Your task to perform on an android device: What's the weather going to be this weekend? Image 0: 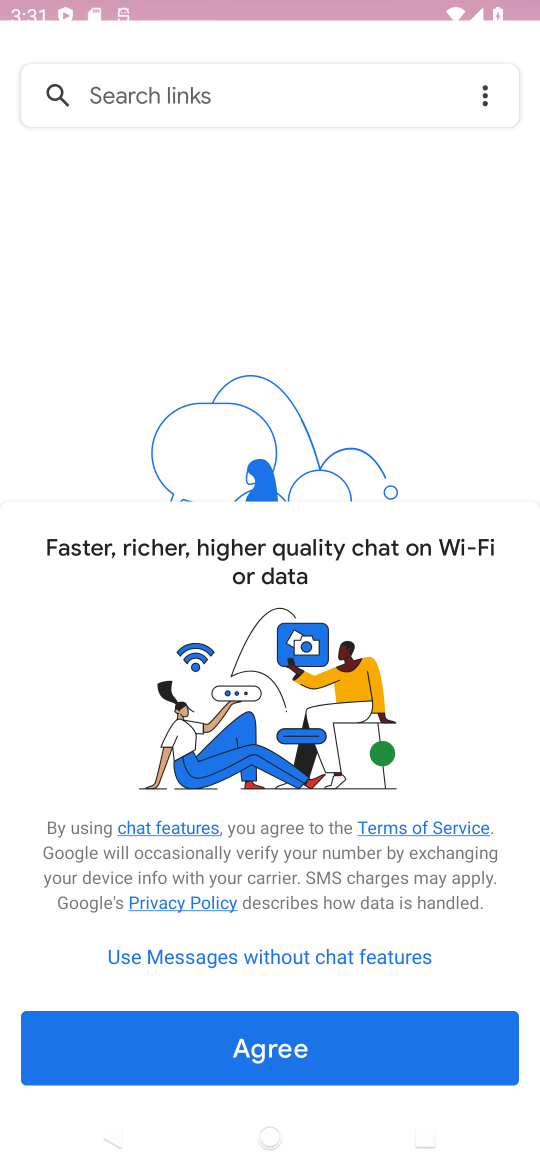
Step 0: press home button
Your task to perform on an android device: What's the weather going to be this weekend? Image 1: 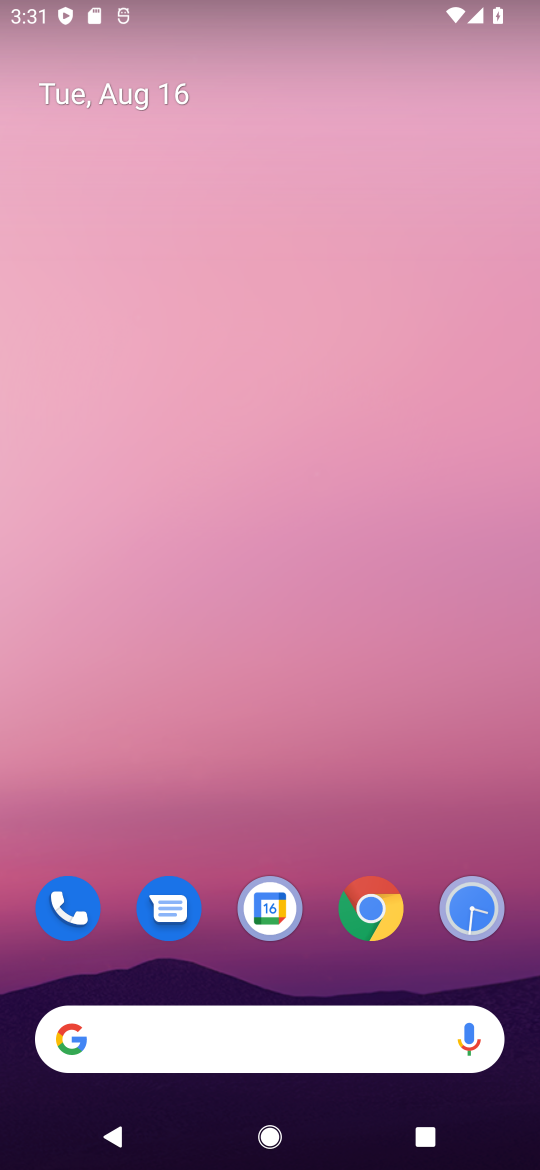
Step 1: drag from (318, 875) to (301, 2)
Your task to perform on an android device: What's the weather going to be this weekend? Image 2: 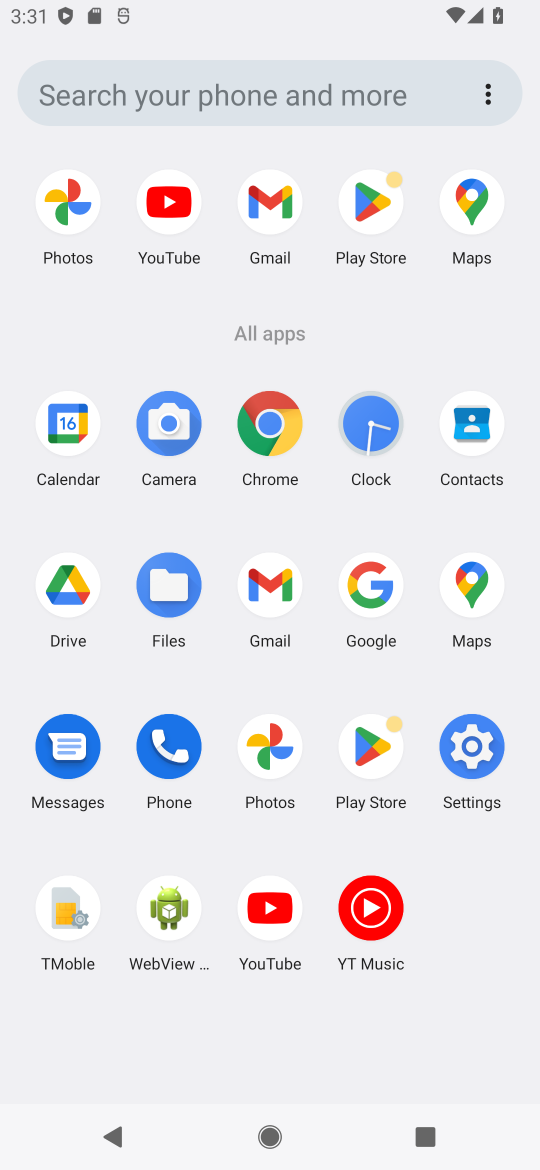
Step 2: click (212, 87)
Your task to perform on an android device: What's the weather going to be this weekend? Image 3: 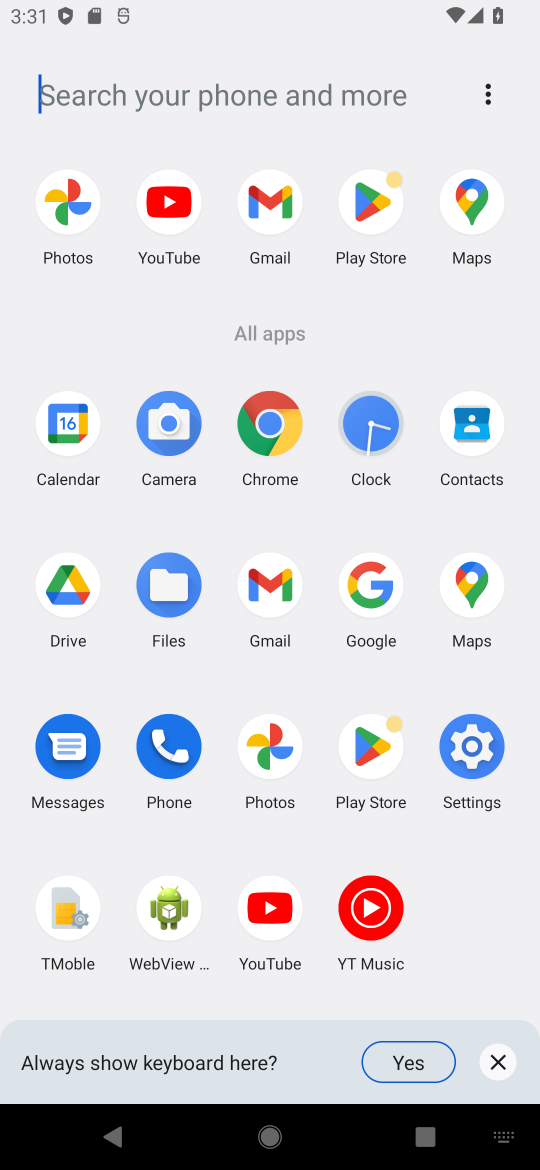
Step 3: type "weather"
Your task to perform on an android device: What's the weather going to be this weekend? Image 4: 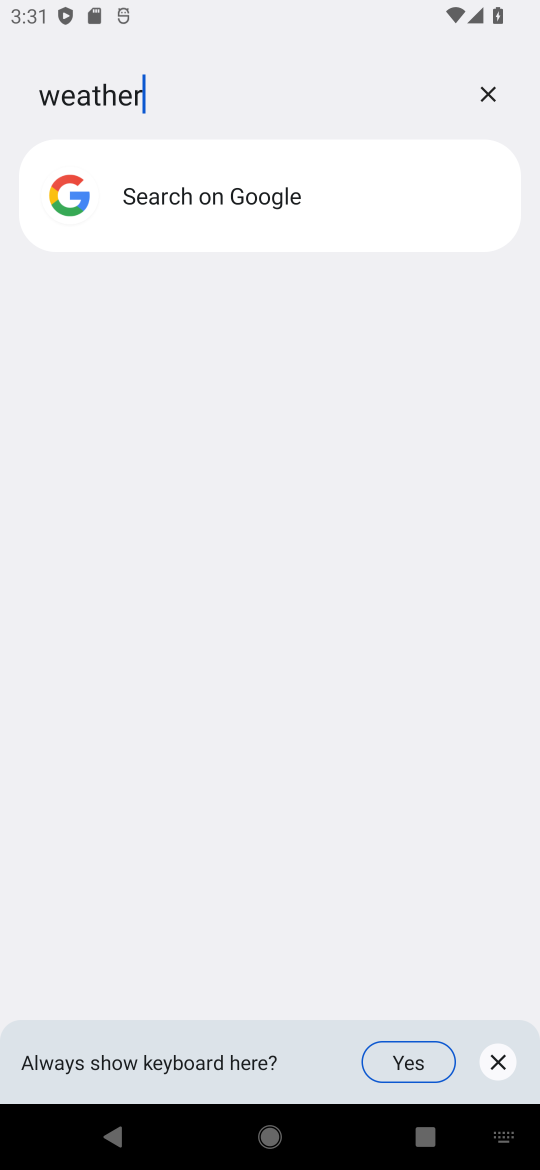
Step 4: click (231, 199)
Your task to perform on an android device: What's the weather going to be this weekend? Image 5: 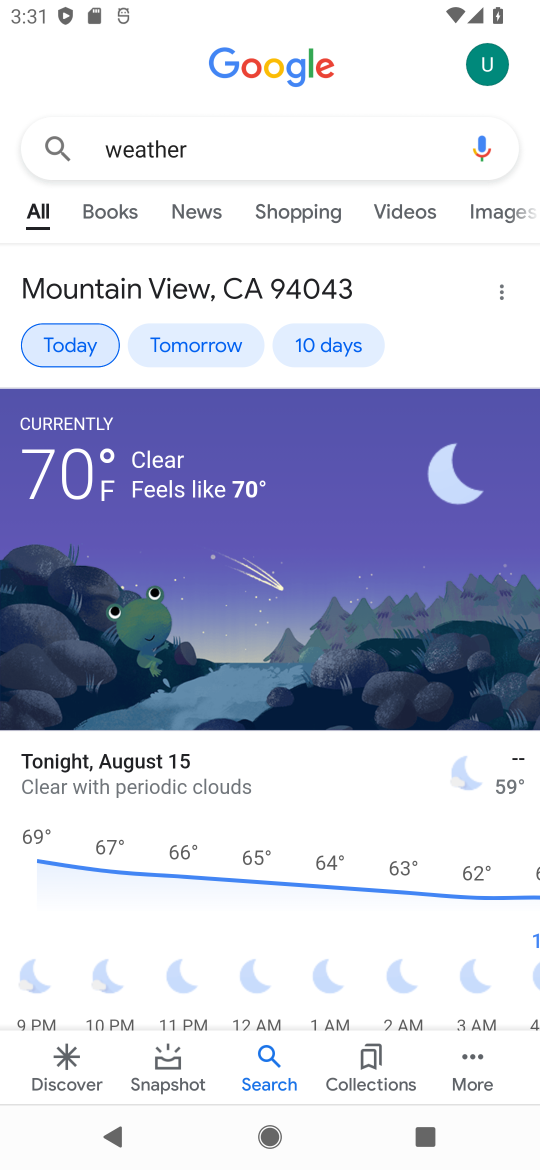
Step 5: drag from (291, 802) to (311, 493)
Your task to perform on an android device: What's the weather going to be this weekend? Image 6: 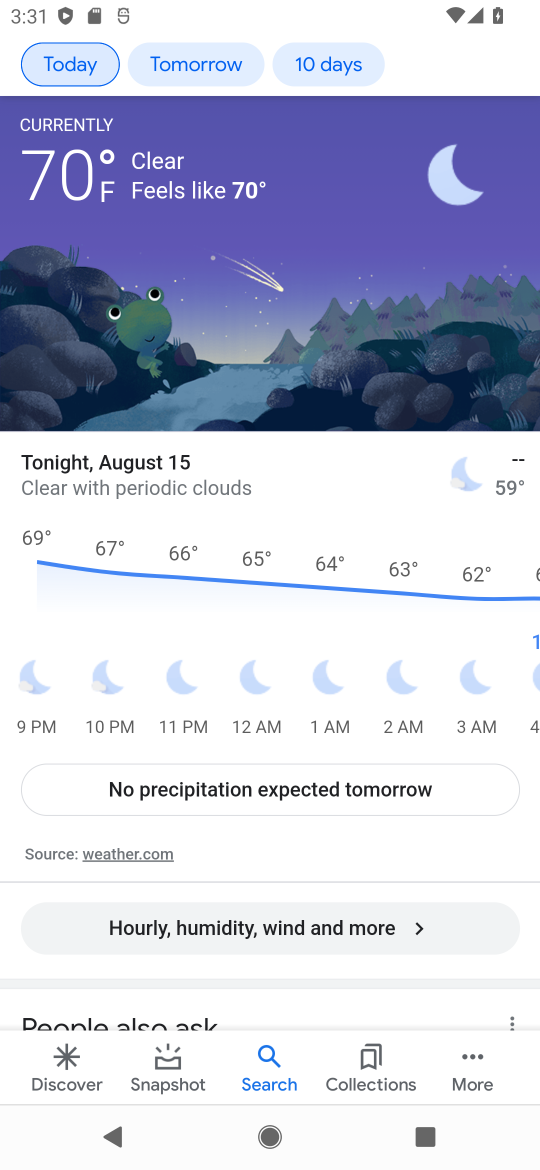
Step 6: click (334, 68)
Your task to perform on an android device: What's the weather going to be this weekend? Image 7: 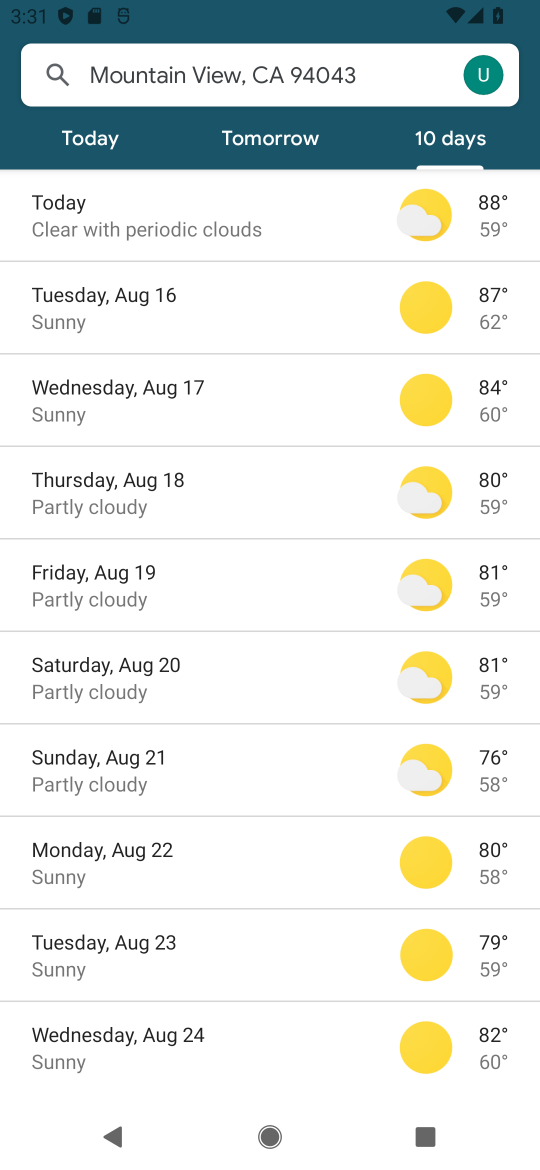
Step 7: click (188, 677)
Your task to perform on an android device: What's the weather going to be this weekend? Image 8: 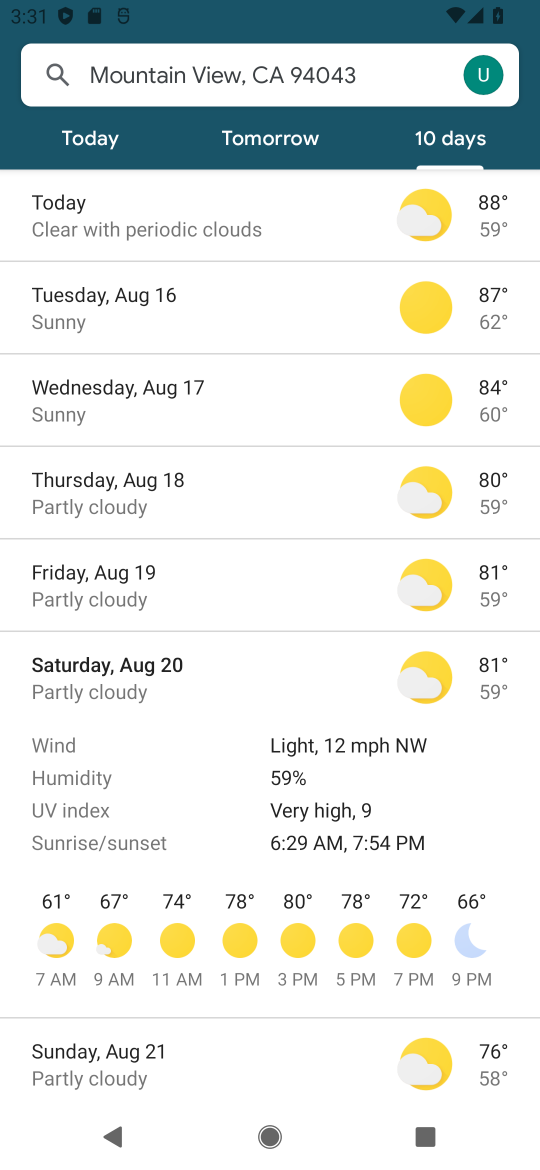
Step 8: drag from (236, 677) to (264, 211)
Your task to perform on an android device: What's the weather going to be this weekend? Image 9: 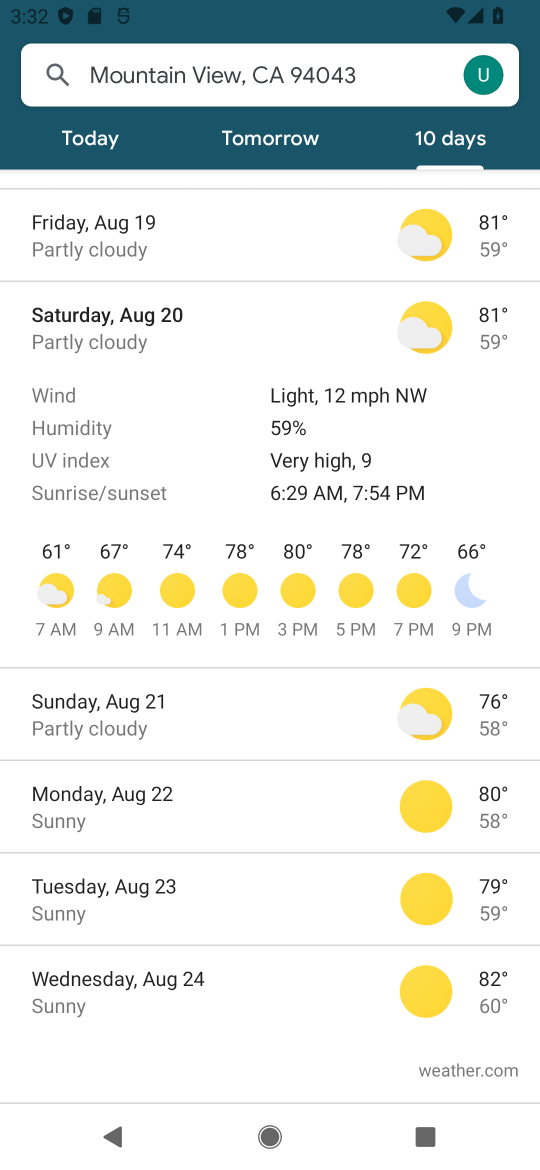
Step 9: click (131, 704)
Your task to perform on an android device: What's the weather going to be this weekend? Image 10: 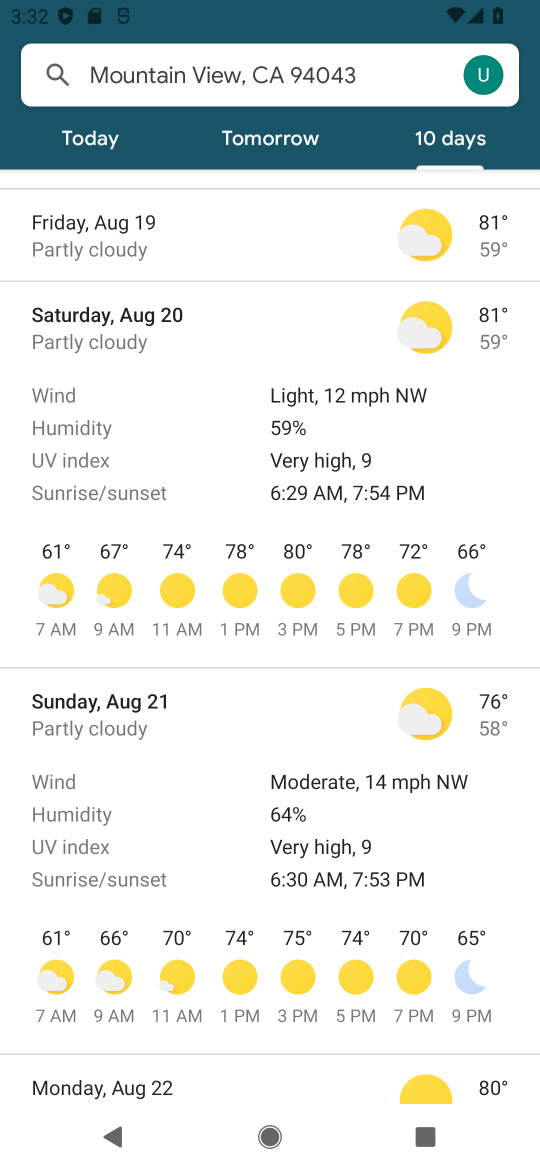
Step 10: task complete